Your task to perform on an android device: Search for Italian restaurants on Maps Image 0: 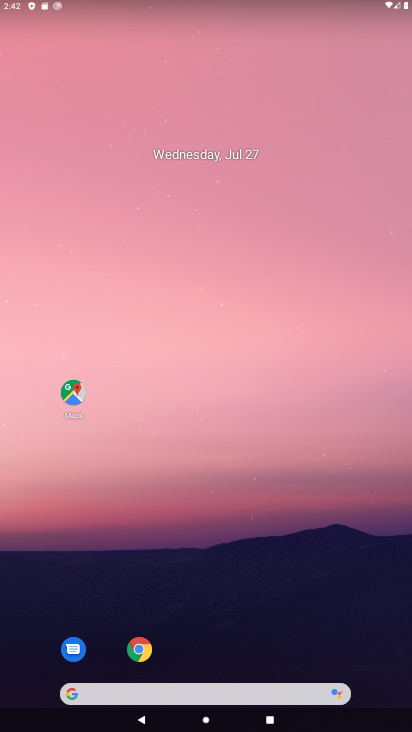
Step 0: drag from (342, 624) to (236, 13)
Your task to perform on an android device: Search for Italian restaurants on Maps Image 1: 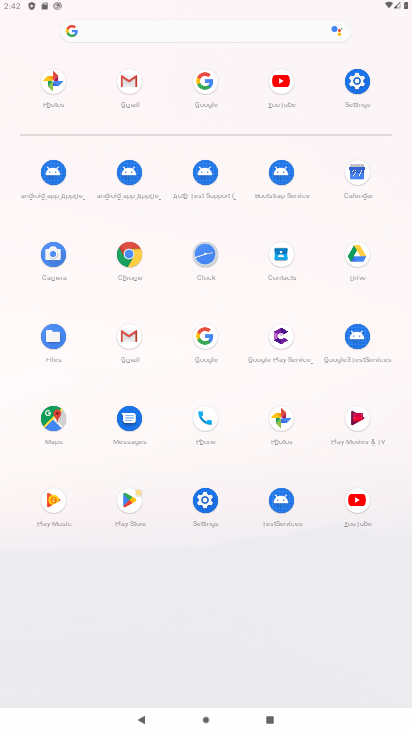
Step 1: click (57, 427)
Your task to perform on an android device: Search for Italian restaurants on Maps Image 2: 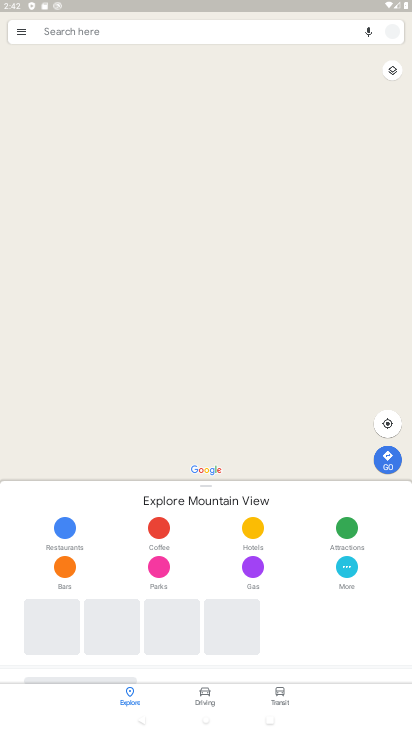
Step 2: click (202, 39)
Your task to perform on an android device: Search for Italian restaurants on Maps Image 3: 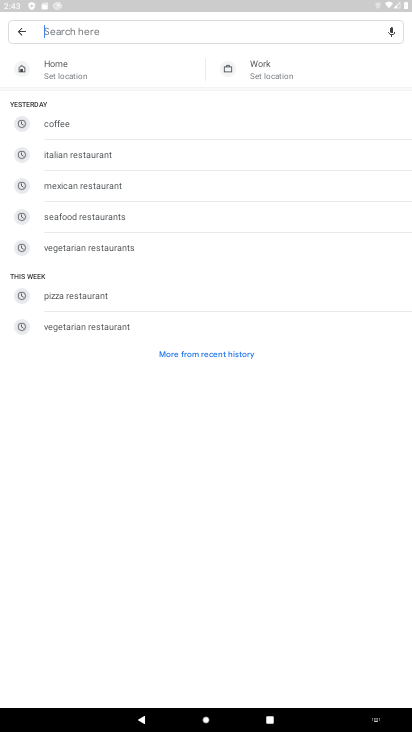
Step 3: type "Italian restaurants"
Your task to perform on an android device: Search for Italian restaurants on Maps Image 4: 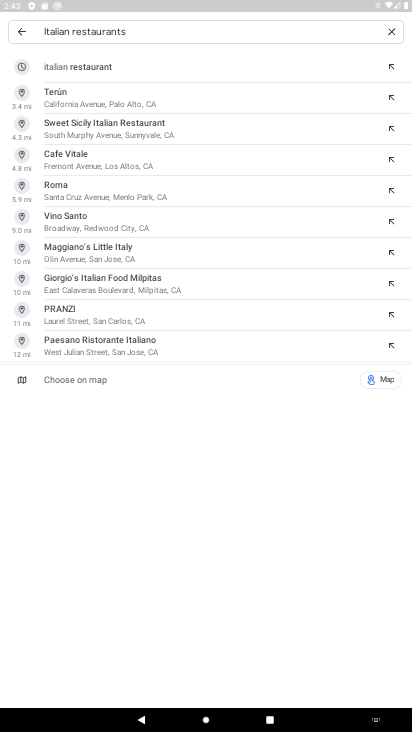
Step 4: click (114, 67)
Your task to perform on an android device: Search for Italian restaurants on Maps Image 5: 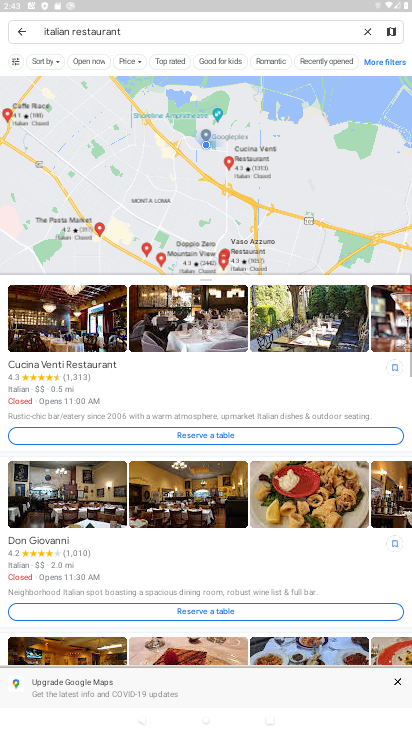
Step 5: task complete